Your task to perform on an android device: What's on my calendar tomorrow? Image 0: 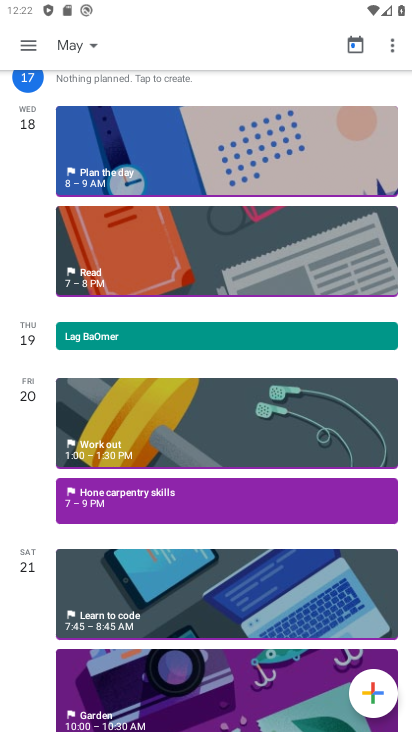
Step 0: task complete